Your task to perform on an android device: open app "Adobe Acrobat Reader: Edit PDF" Image 0: 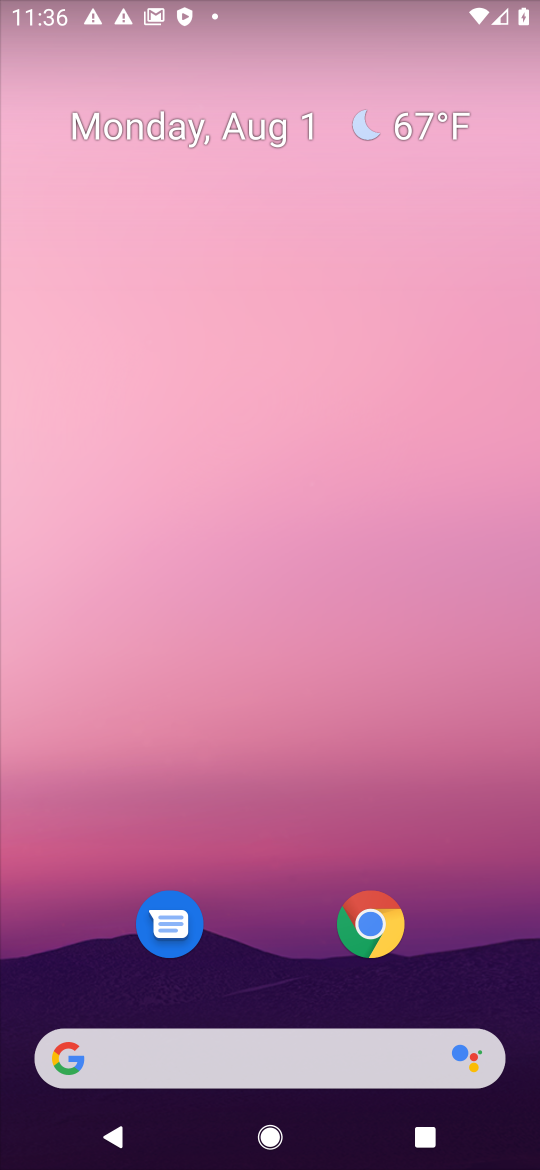
Step 0: drag from (277, 836) to (319, 3)
Your task to perform on an android device: open app "Adobe Acrobat Reader: Edit PDF" Image 1: 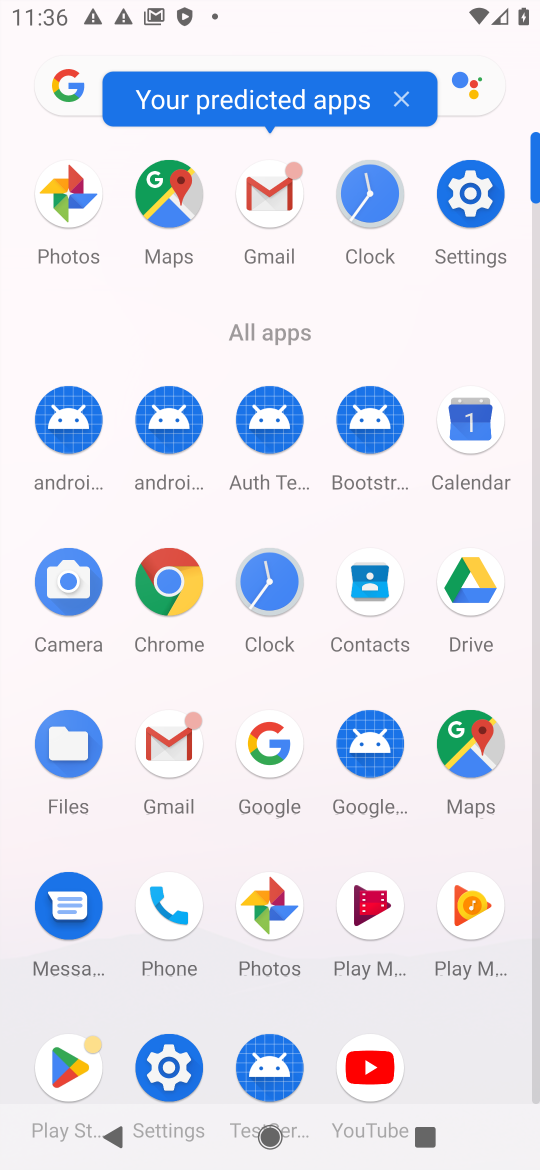
Step 1: click (63, 1061)
Your task to perform on an android device: open app "Adobe Acrobat Reader: Edit PDF" Image 2: 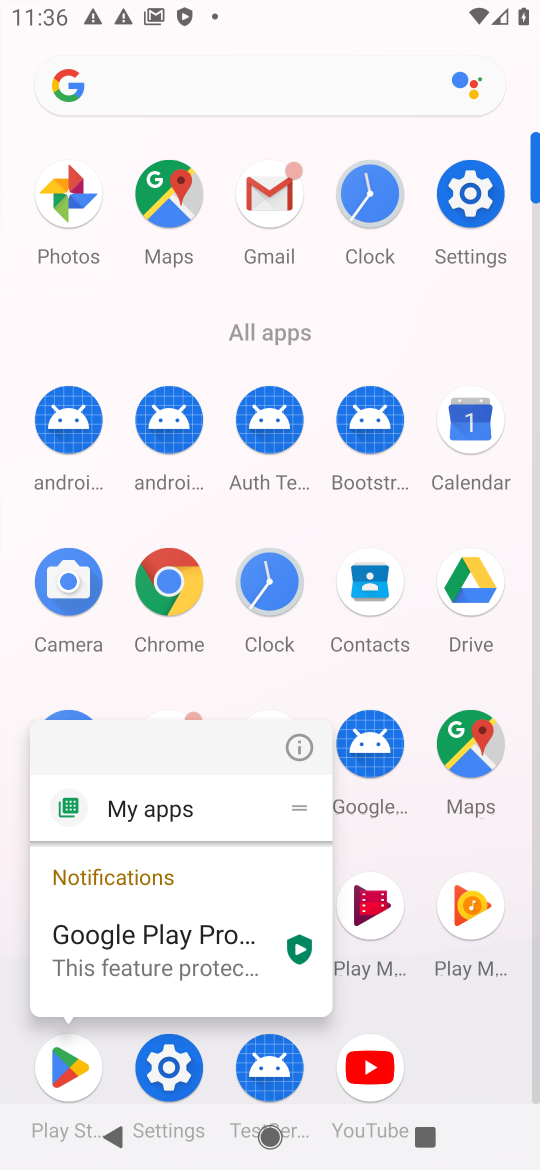
Step 2: click (65, 1059)
Your task to perform on an android device: open app "Adobe Acrobat Reader: Edit PDF" Image 3: 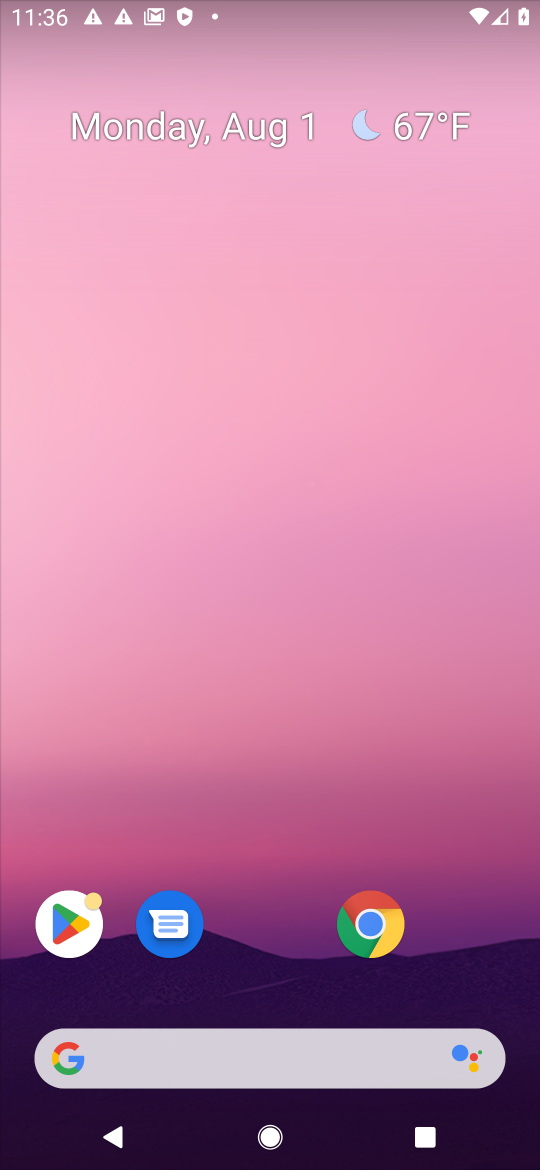
Step 3: click (66, 919)
Your task to perform on an android device: open app "Adobe Acrobat Reader: Edit PDF" Image 4: 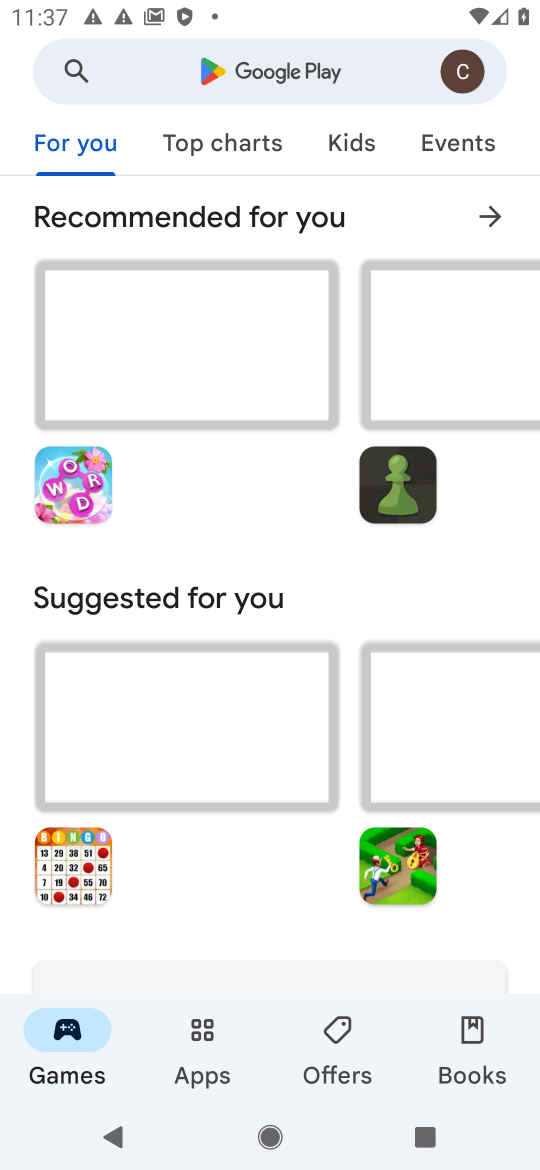
Step 4: click (186, 54)
Your task to perform on an android device: open app "Adobe Acrobat Reader: Edit PDF" Image 5: 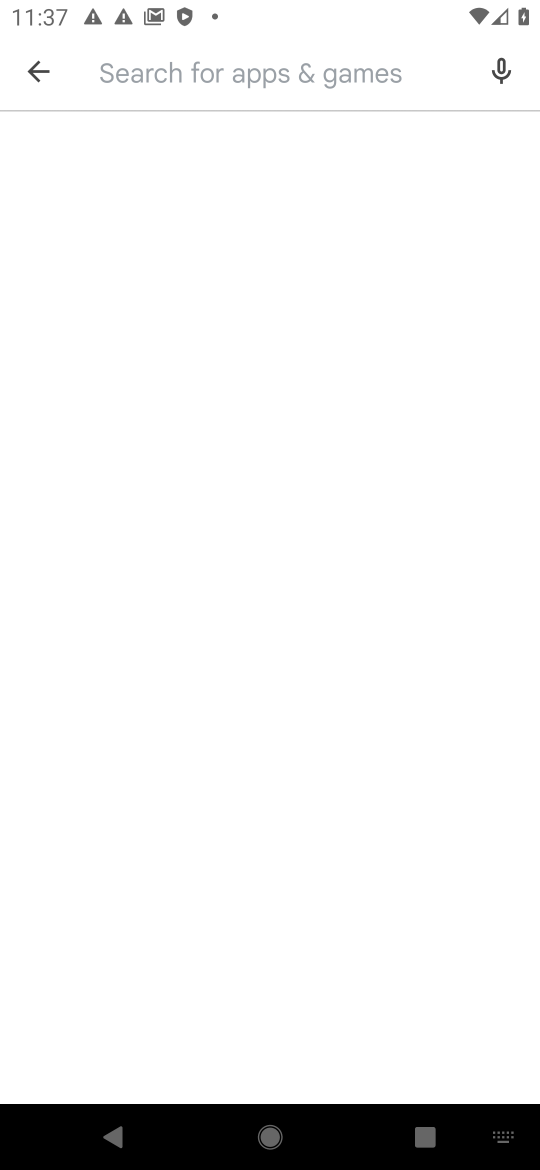
Step 5: type "Adobe Acrobat Reader: Edit PDF"
Your task to perform on an android device: open app "Adobe Acrobat Reader: Edit PDF" Image 6: 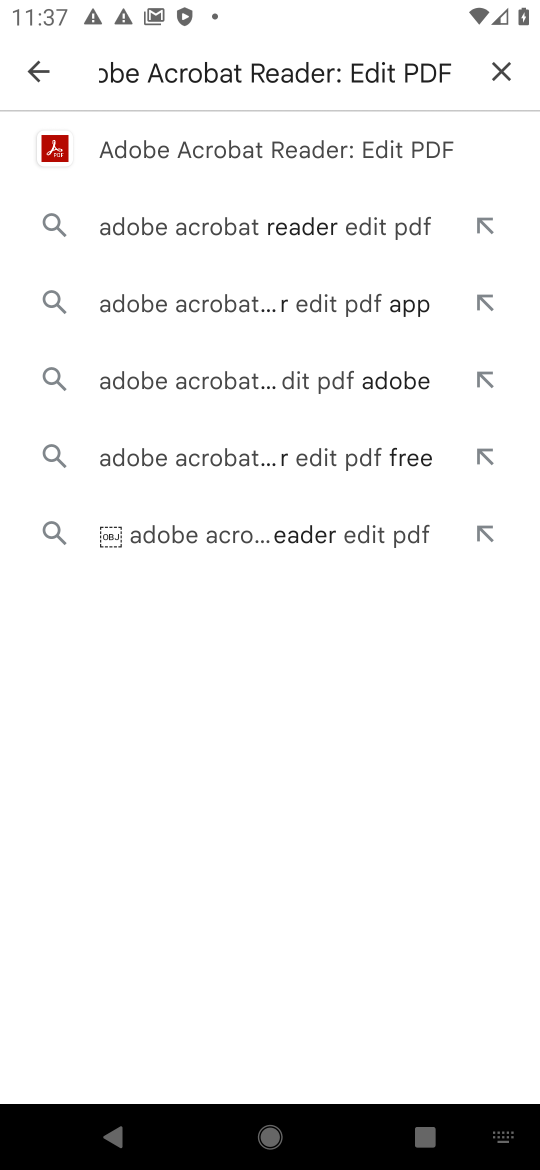
Step 6: click (237, 155)
Your task to perform on an android device: open app "Adobe Acrobat Reader: Edit PDF" Image 7: 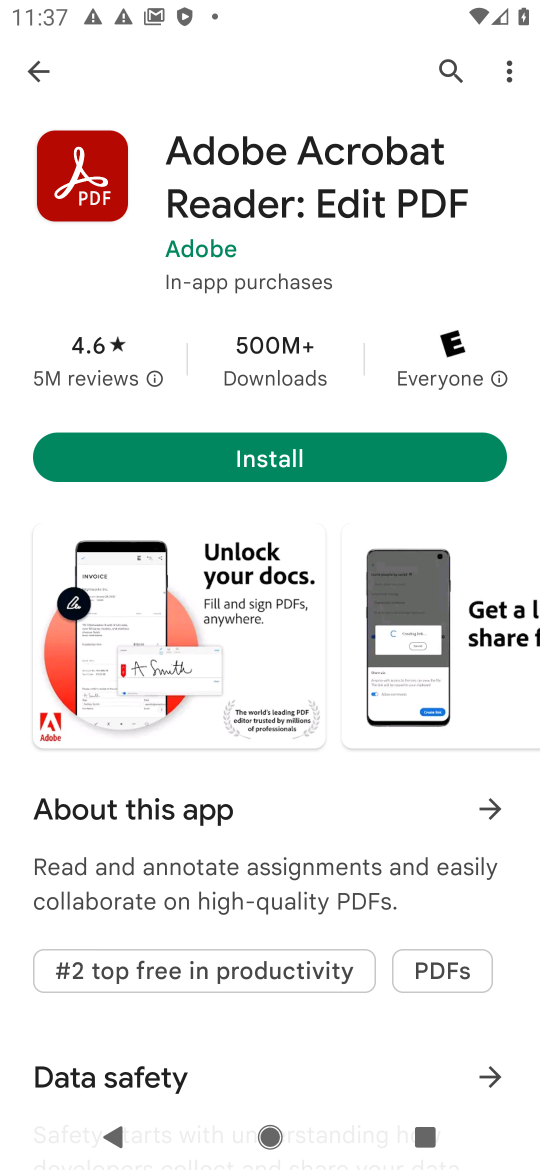
Step 7: task complete